Your task to perform on an android device: toggle airplane mode Image 0: 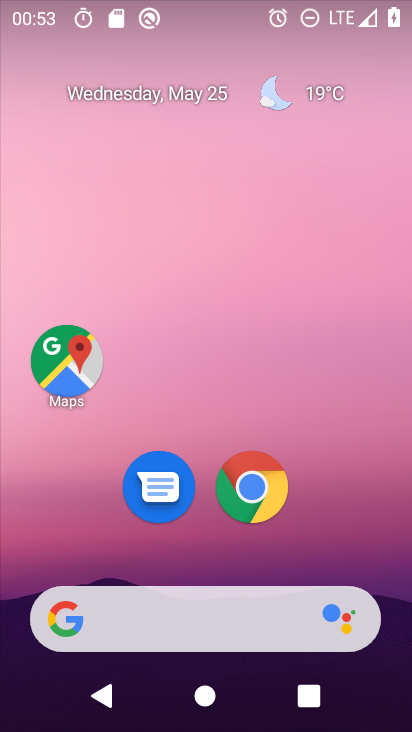
Step 0: drag from (386, 585) to (320, 16)
Your task to perform on an android device: toggle airplane mode Image 1: 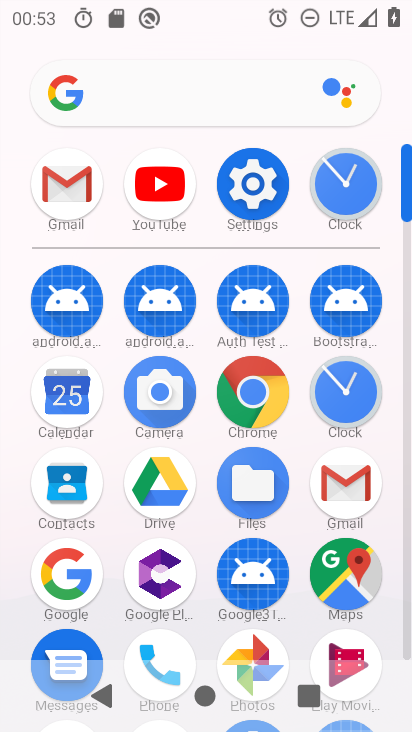
Step 1: click (250, 178)
Your task to perform on an android device: toggle airplane mode Image 2: 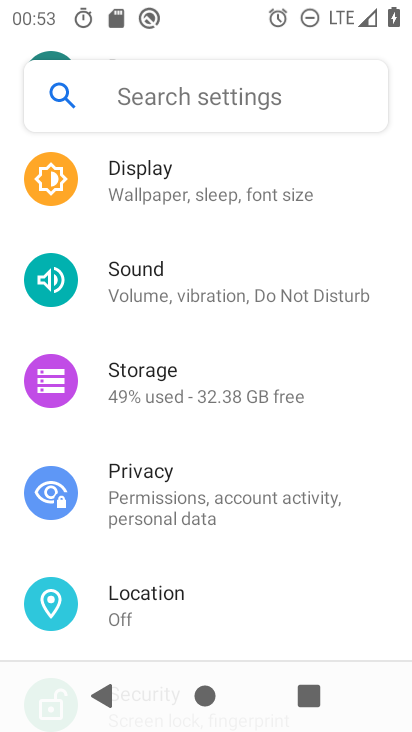
Step 2: drag from (250, 178) to (222, 587)
Your task to perform on an android device: toggle airplane mode Image 3: 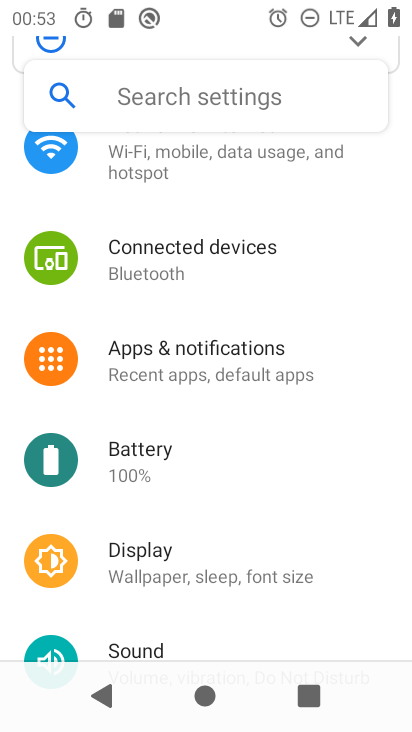
Step 3: drag from (202, 180) to (171, 398)
Your task to perform on an android device: toggle airplane mode Image 4: 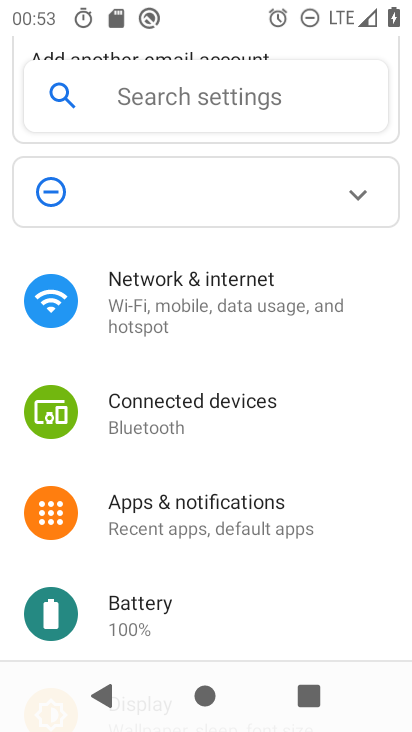
Step 4: click (151, 300)
Your task to perform on an android device: toggle airplane mode Image 5: 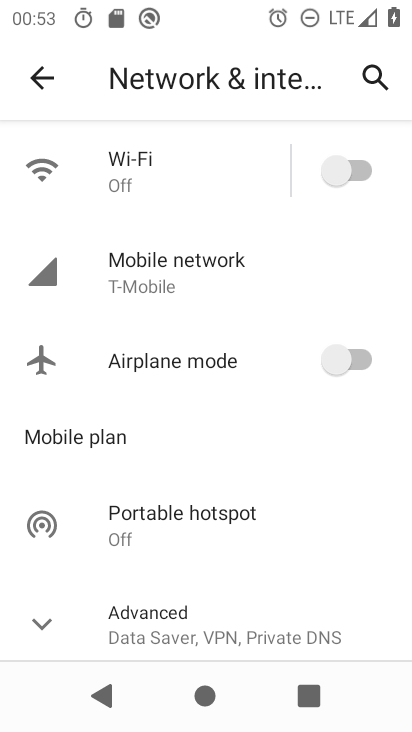
Step 5: click (329, 365)
Your task to perform on an android device: toggle airplane mode Image 6: 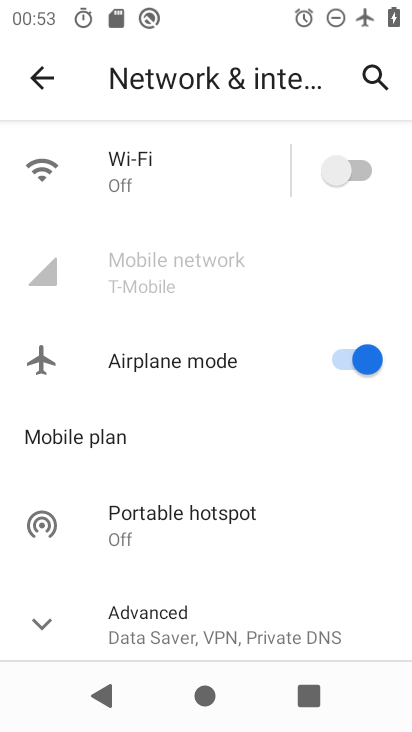
Step 6: task complete